Your task to perform on an android device: Check the news Image 0: 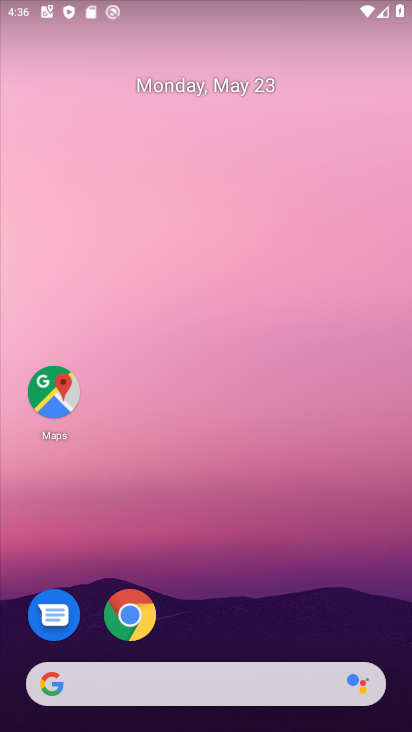
Step 0: click (160, 681)
Your task to perform on an android device: Check the news Image 1: 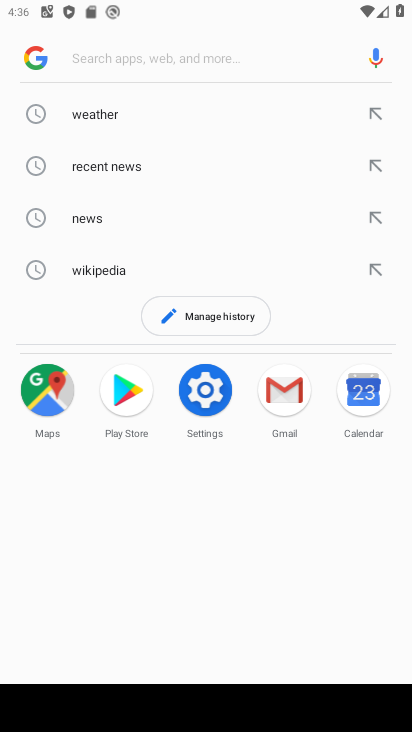
Step 1: click (86, 213)
Your task to perform on an android device: Check the news Image 2: 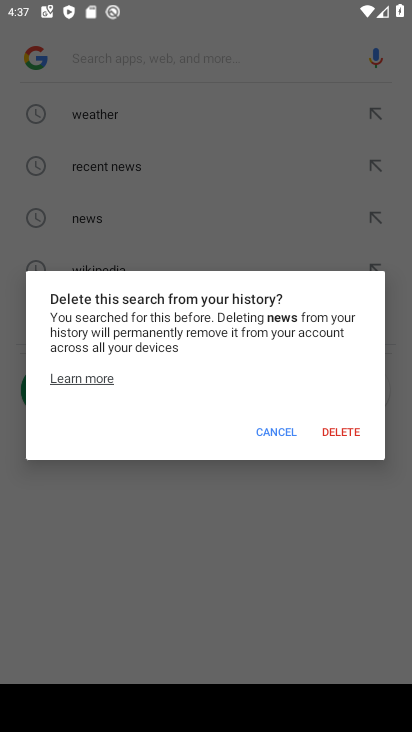
Step 2: click (281, 440)
Your task to perform on an android device: Check the news Image 3: 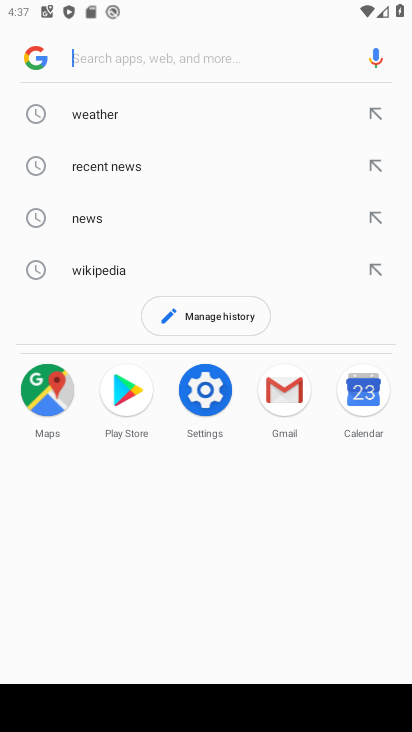
Step 3: click (133, 213)
Your task to perform on an android device: Check the news Image 4: 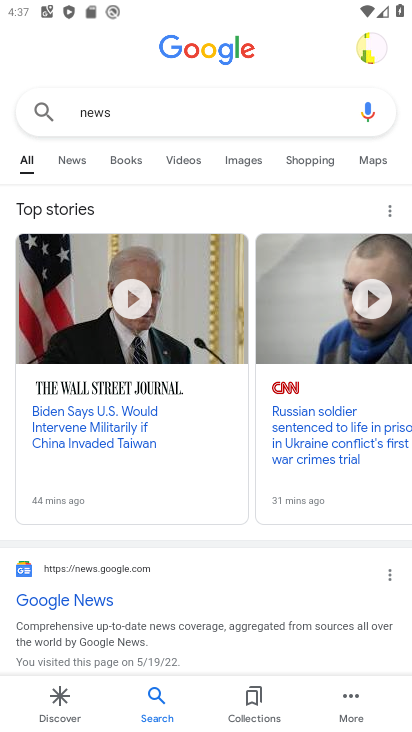
Step 4: task complete